Your task to perform on an android device: Go to internet settings Image 0: 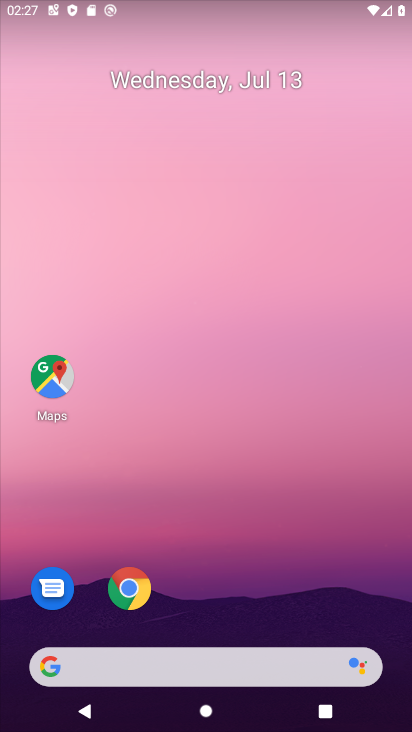
Step 0: drag from (390, 648) to (86, 85)
Your task to perform on an android device: Go to internet settings Image 1: 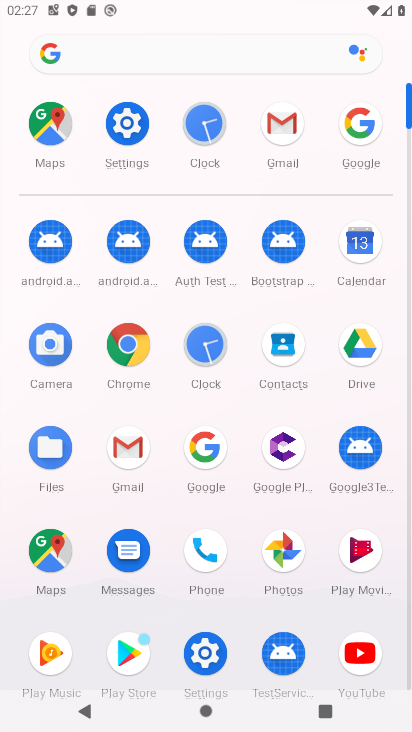
Step 1: click (100, 116)
Your task to perform on an android device: Go to internet settings Image 2: 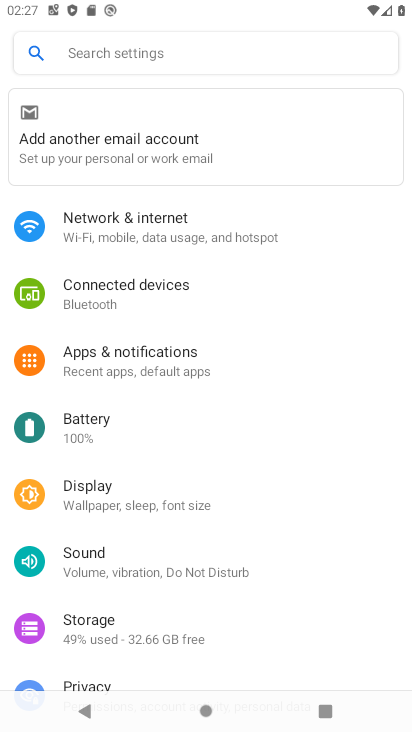
Step 2: click (168, 230)
Your task to perform on an android device: Go to internet settings Image 3: 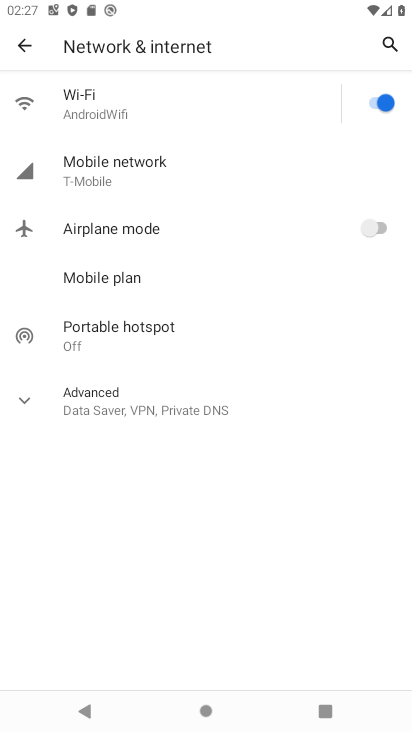
Step 3: click (45, 394)
Your task to perform on an android device: Go to internet settings Image 4: 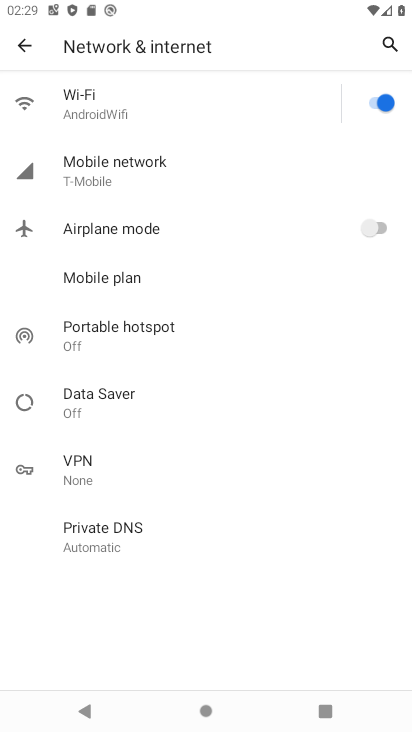
Step 4: task complete